Your task to perform on an android device: toggle pop-ups in chrome Image 0: 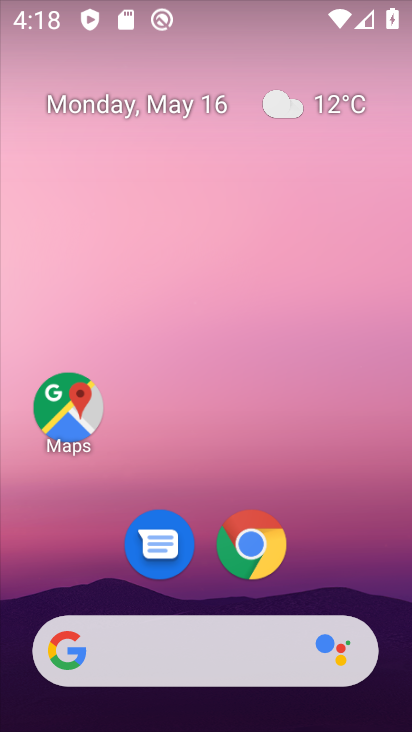
Step 0: click (251, 545)
Your task to perform on an android device: toggle pop-ups in chrome Image 1: 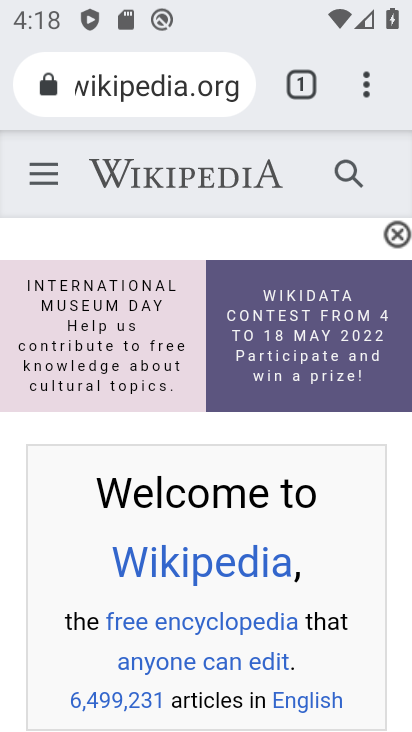
Step 1: click (366, 85)
Your task to perform on an android device: toggle pop-ups in chrome Image 2: 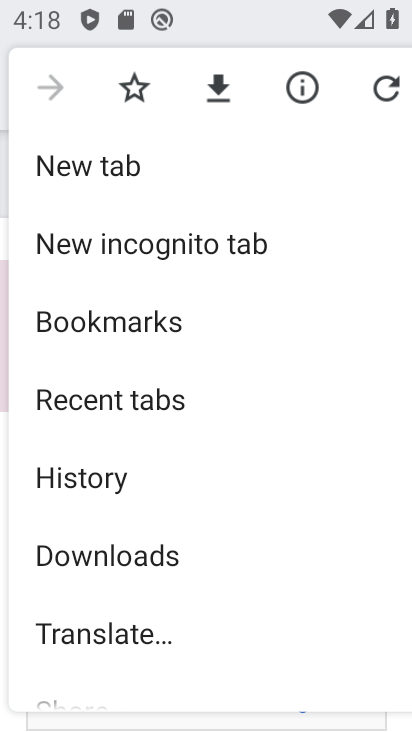
Step 2: drag from (112, 438) to (127, 350)
Your task to perform on an android device: toggle pop-ups in chrome Image 3: 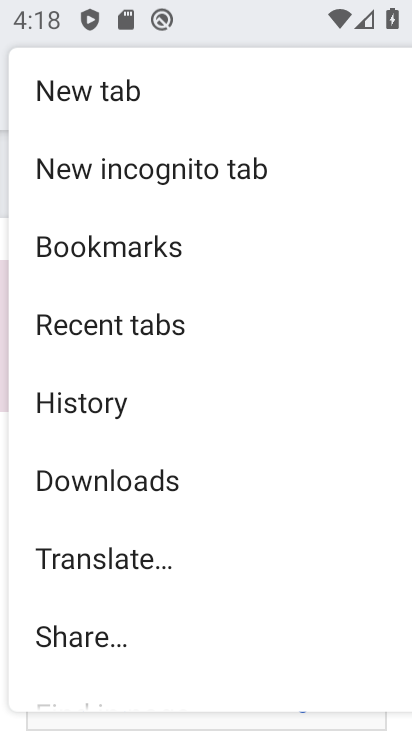
Step 3: drag from (122, 457) to (158, 372)
Your task to perform on an android device: toggle pop-ups in chrome Image 4: 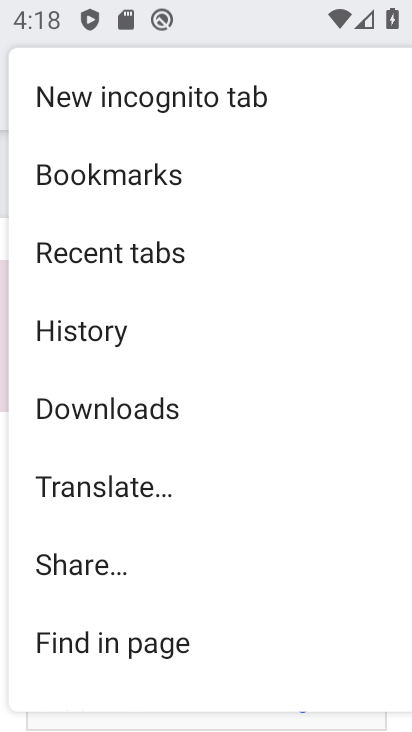
Step 4: drag from (90, 523) to (111, 403)
Your task to perform on an android device: toggle pop-ups in chrome Image 5: 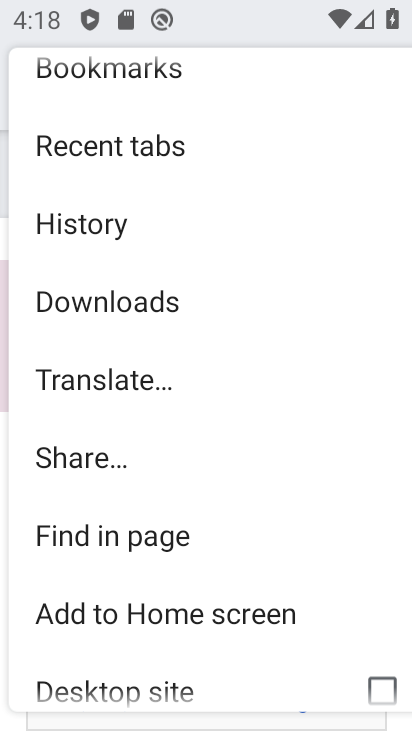
Step 5: drag from (94, 505) to (144, 413)
Your task to perform on an android device: toggle pop-ups in chrome Image 6: 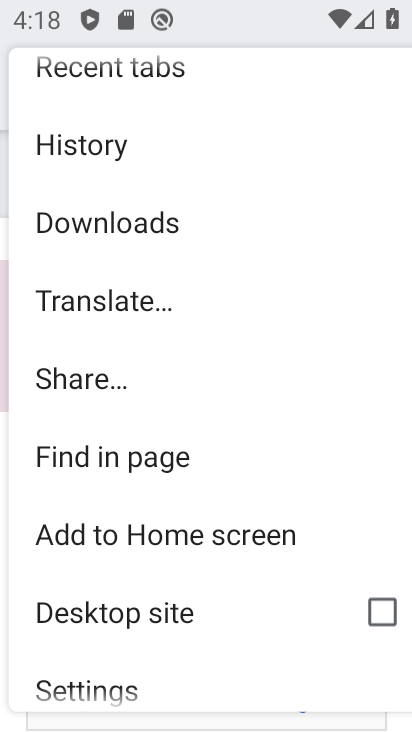
Step 6: drag from (112, 577) to (110, 418)
Your task to perform on an android device: toggle pop-ups in chrome Image 7: 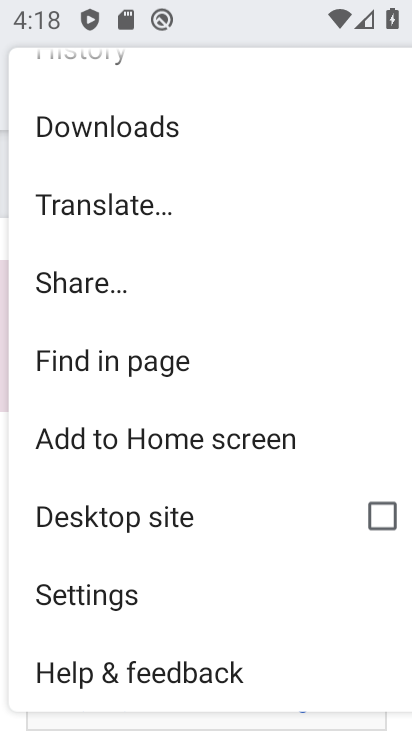
Step 7: click (70, 593)
Your task to perform on an android device: toggle pop-ups in chrome Image 8: 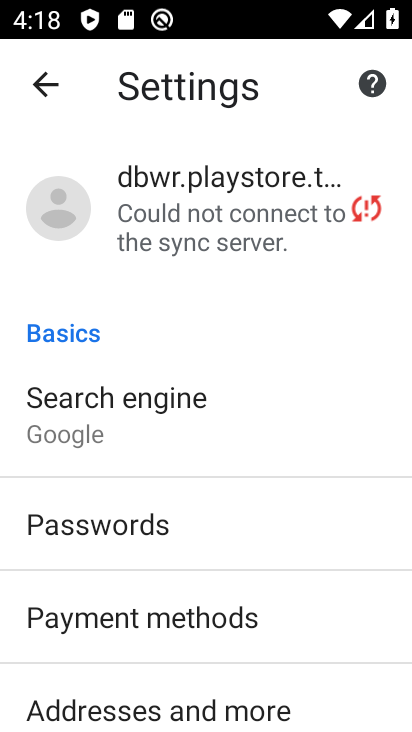
Step 8: drag from (128, 504) to (188, 376)
Your task to perform on an android device: toggle pop-ups in chrome Image 9: 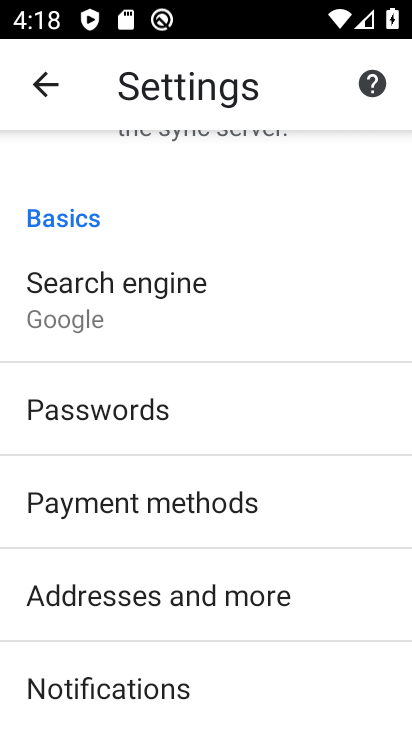
Step 9: drag from (149, 478) to (197, 400)
Your task to perform on an android device: toggle pop-ups in chrome Image 10: 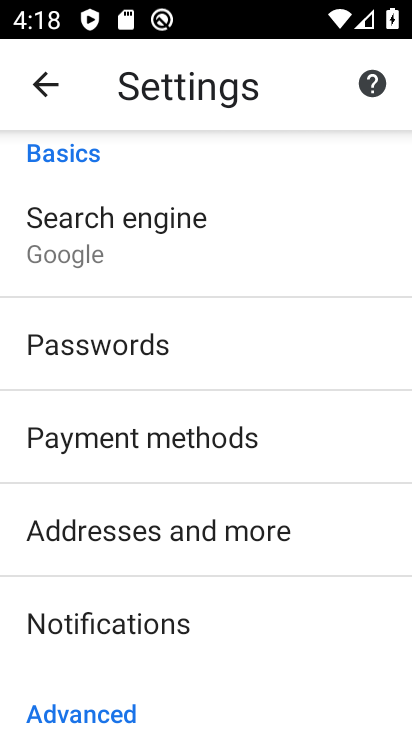
Step 10: drag from (117, 558) to (203, 427)
Your task to perform on an android device: toggle pop-ups in chrome Image 11: 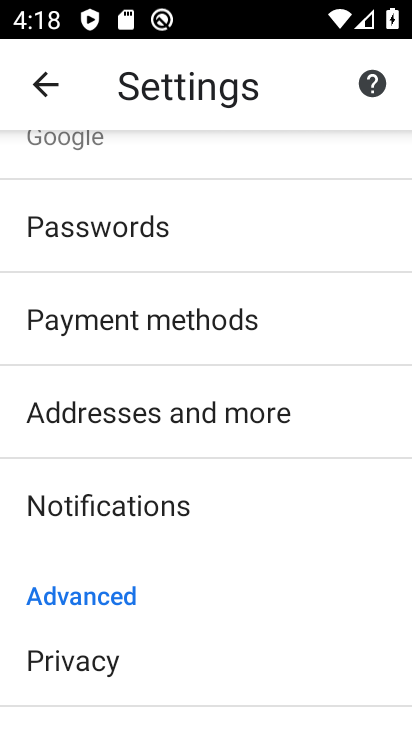
Step 11: drag from (96, 544) to (160, 431)
Your task to perform on an android device: toggle pop-ups in chrome Image 12: 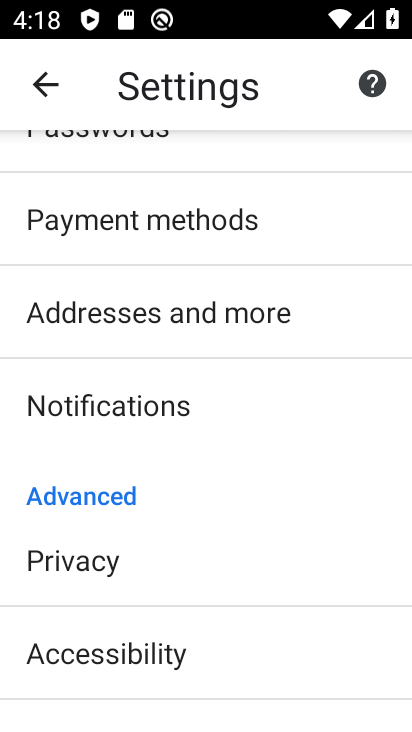
Step 12: drag from (88, 584) to (192, 448)
Your task to perform on an android device: toggle pop-ups in chrome Image 13: 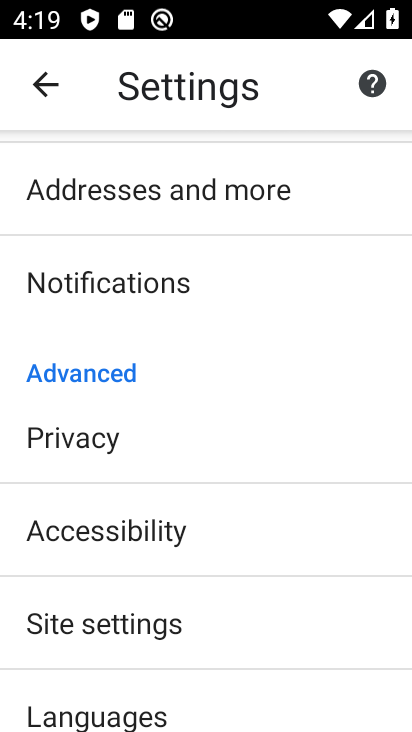
Step 13: drag from (86, 575) to (172, 467)
Your task to perform on an android device: toggle pop-ups in chrome Image 14: 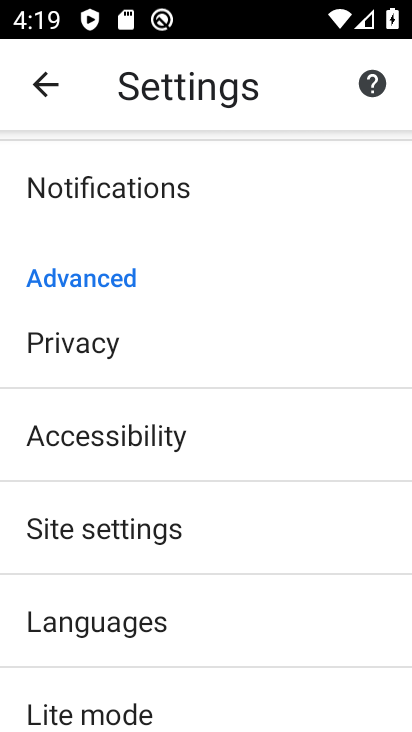
Step 14: drag from (106, 567) to (209, 455)
Your task to perform on an android device: toggle pop-ups in chrome Image 15: 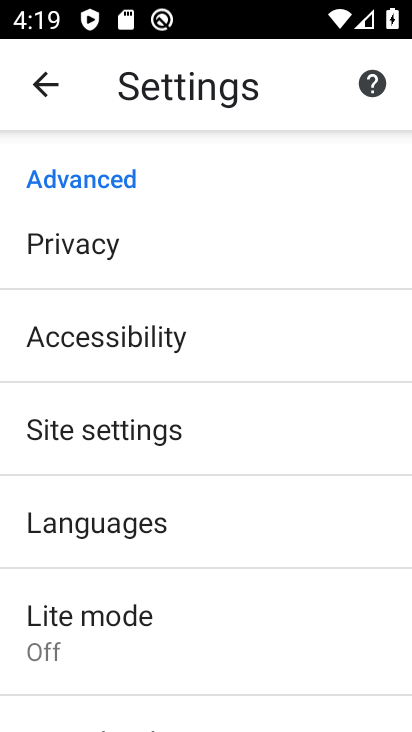
Step 15: click (112, 434)
Your task to perform on an android device: toggle pop-ups in chrome Image 16: 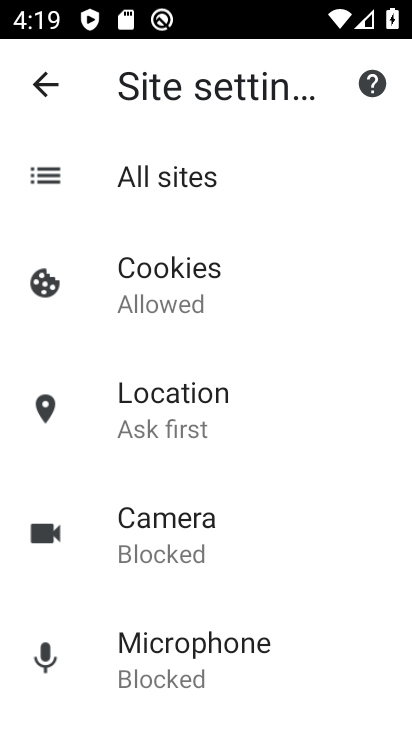
Step 16: drag from (276, 566) to (327, 335)
Your task to perform on an android device: toggle pop-ups in chrome Image 17: 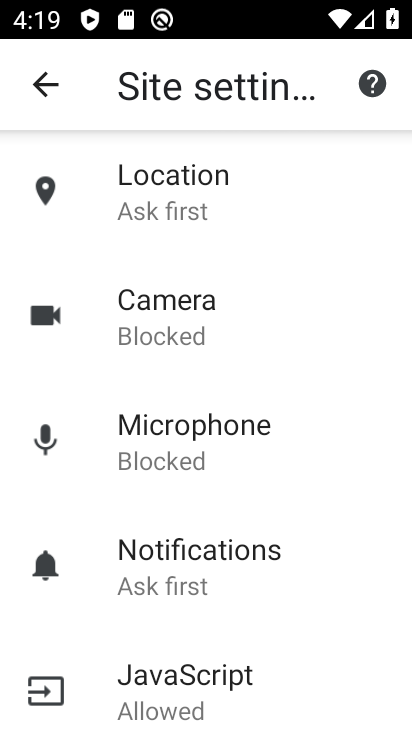
Step 17: drag from (251, 569) to (286, 458)
Your task to perform on an android device: toggle pop-ups in chrome Image 18: 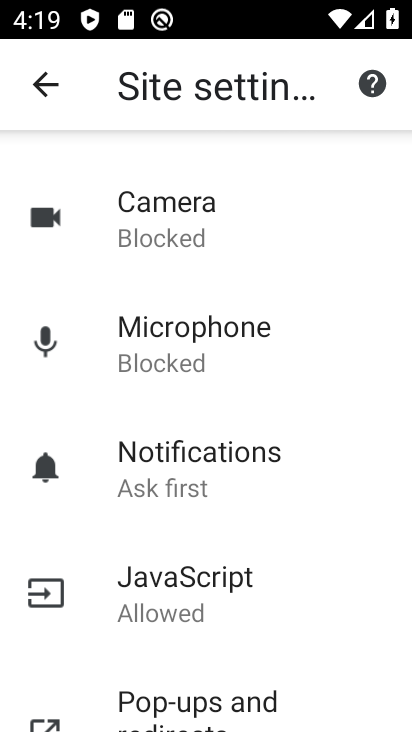
Step 18: drag from (224, 633) to (231, 502)
Your task to perform on an android device: toggle pop-ups in chrome Image 19: 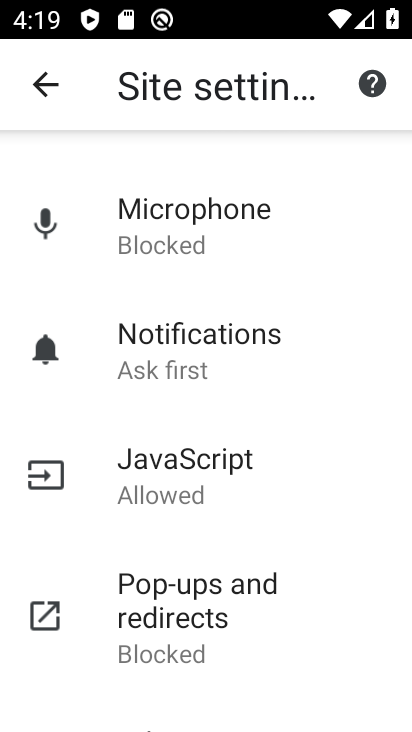
Step 19: click (188, 593)
Your task to perform on an android device: toggle pop-ups in chrome Image 20: 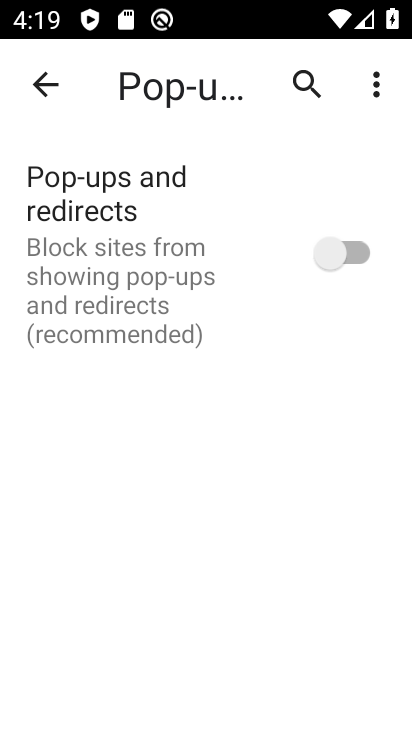
Step 20: click (328, 261)
Your task to perform on an android device: toggle pop-ups in chrome Image 21: 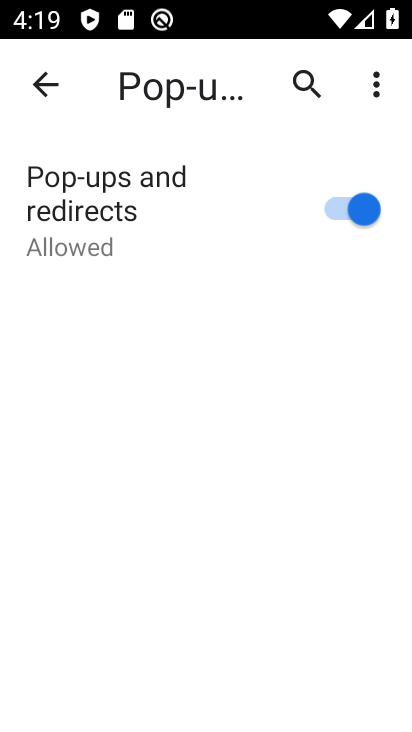
Step 21: task complete